Your task to perform on an android device: Open the calendar and show me this week's events? Image 0: 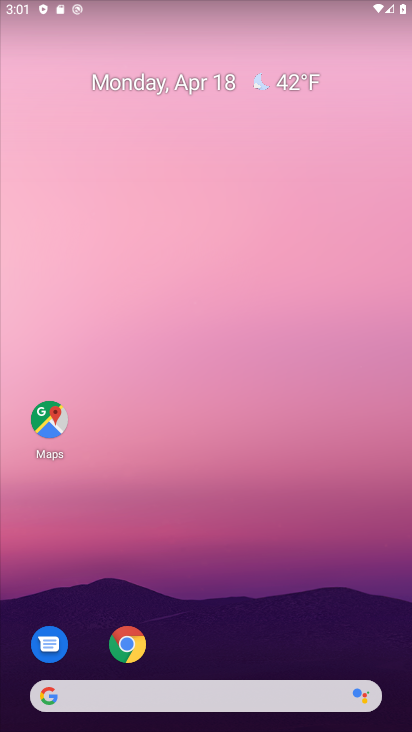
Step 0: click (275, 244)
Your task to perform on an android device: Open the calendar and show me this week's events? Image 1: 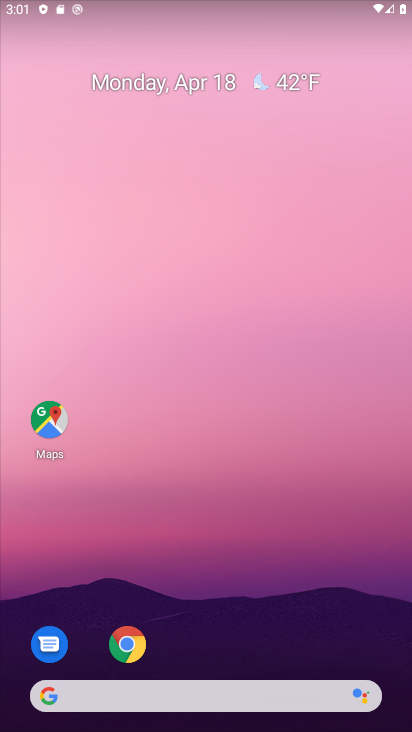
Step 1: drag from (202, 675) to (324, 52)
Your task to perform on an android device: Open the calendar and show me this week's events? Image 2: 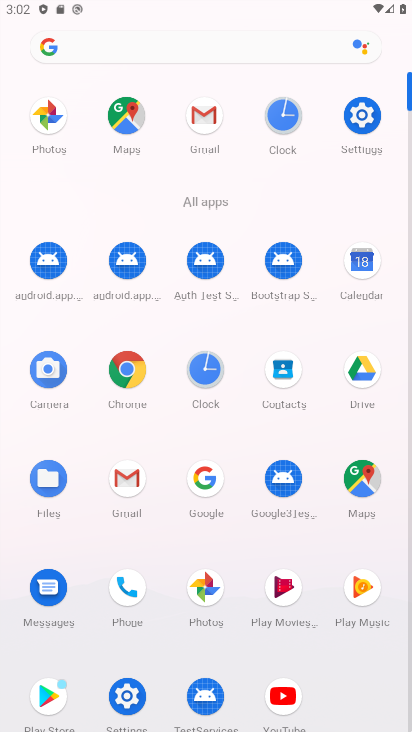
Step 2: click (355, 254)
Your task to perform on an android device: Open the calendar and show me this week's events? Image 3: 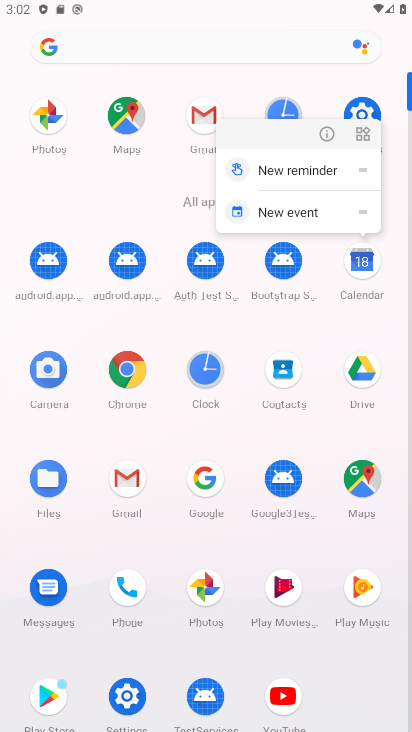
Step 3: click (367, 257)
Your task to perform on an android device: Open the calendar and show me this week's events? Image 4: 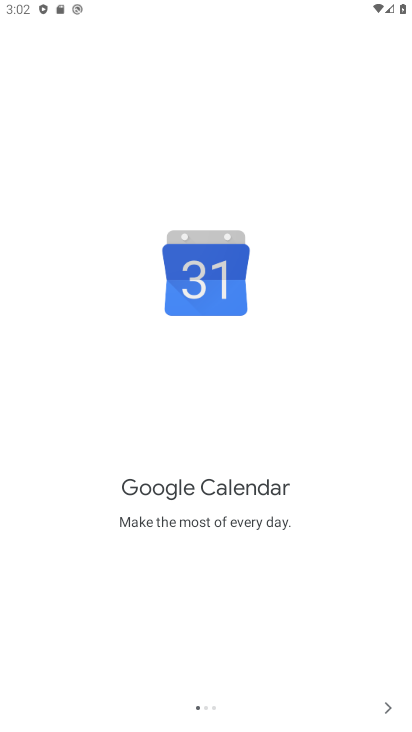
Step 4: click (381, 710)
Your task to perform on an android device: Open the calendar and show me this week's events? Image 5: 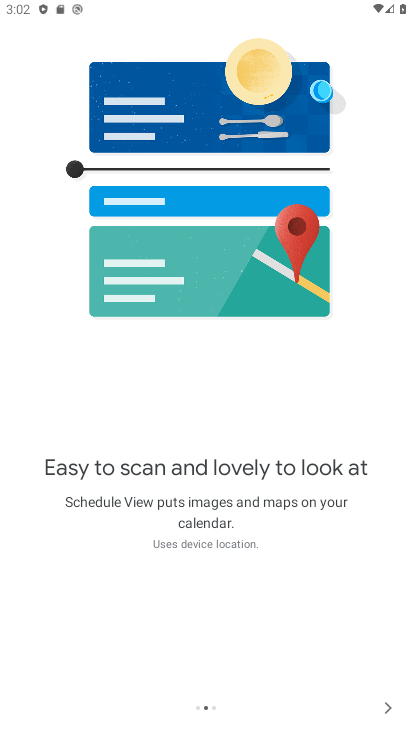
Step 5: click (383, 709)
Your task to perform on an android device: Open the calendar and show me this week's events? Image 6: 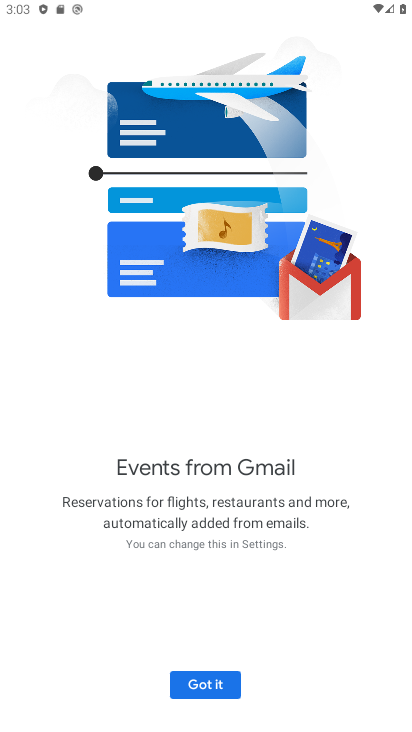
Step 6: click (201, 688)
Your task to perform on an android device: Open the calendar and show me this week's events? Image 7: 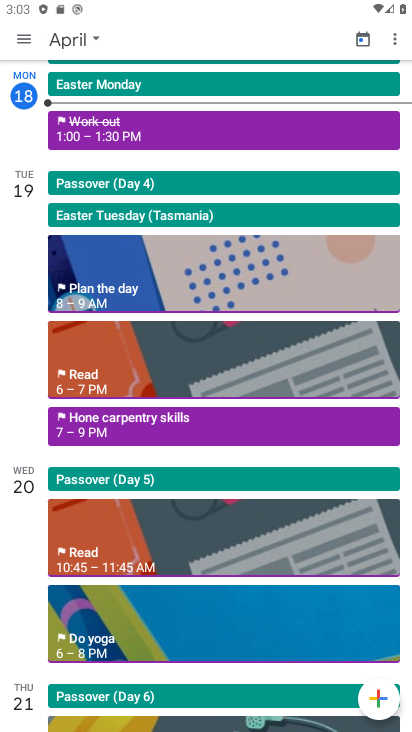
Step 7: click (77, 36)
Your task to perform on an android device: Open the calendar and show me this week's events? Image 8: 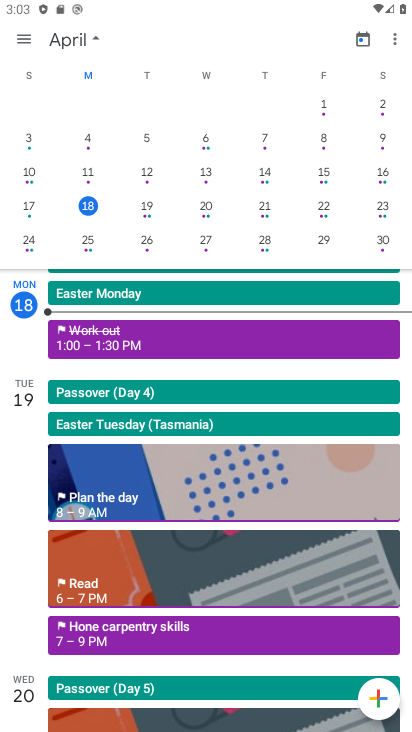
Step 8: click (263, 210)
Your task to perform on an android device: Open the calendar and show me this week's events? Image 9: 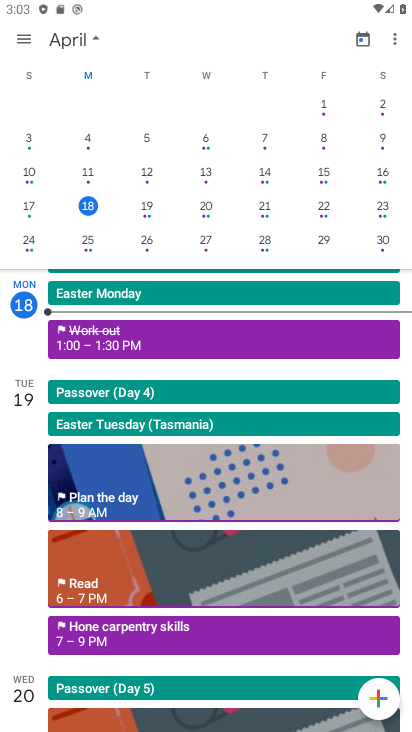
Step 9: click (204, 207)
Your task to perform on an android device: Open the calendar and show me this week's events? Image 10: 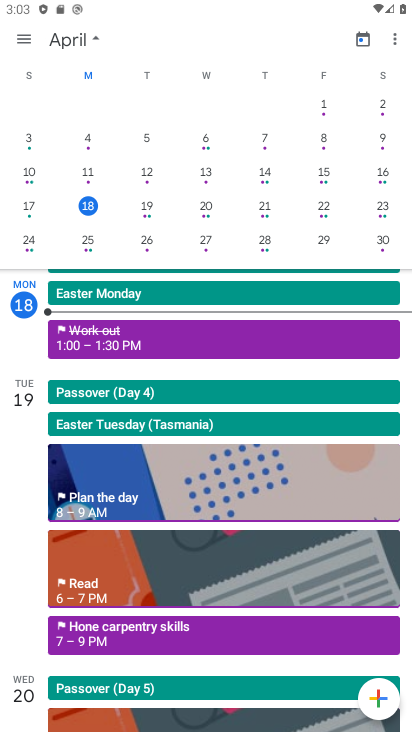
Step 10: click (207, 204)
Your task to perform on an android device: Open the calendar and show me this week's events? Image 11: 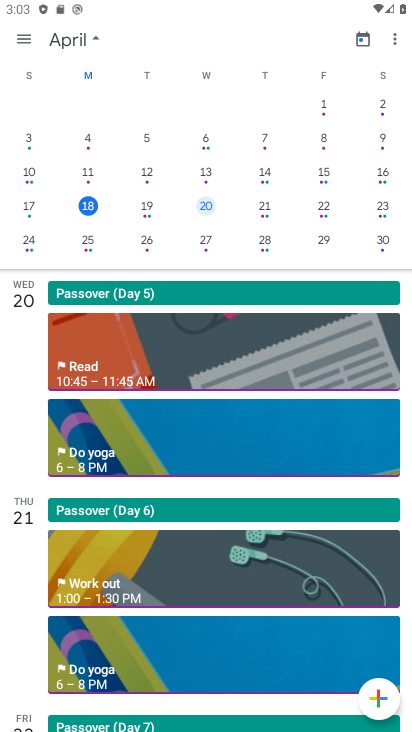
Step 11: task complete